Your task to perform on an android device: turn off translation in the chrome app Image 0: 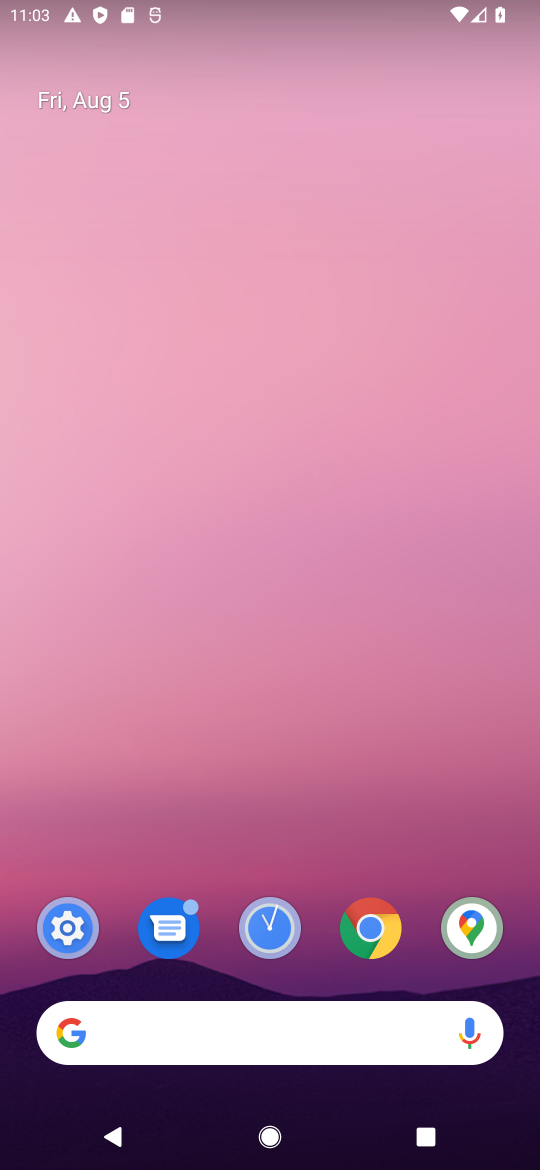
Step 0: drag from (284, 972) to (228, 201)
Your task to perform on an android device: turn off translation in the chrome app Image 1: 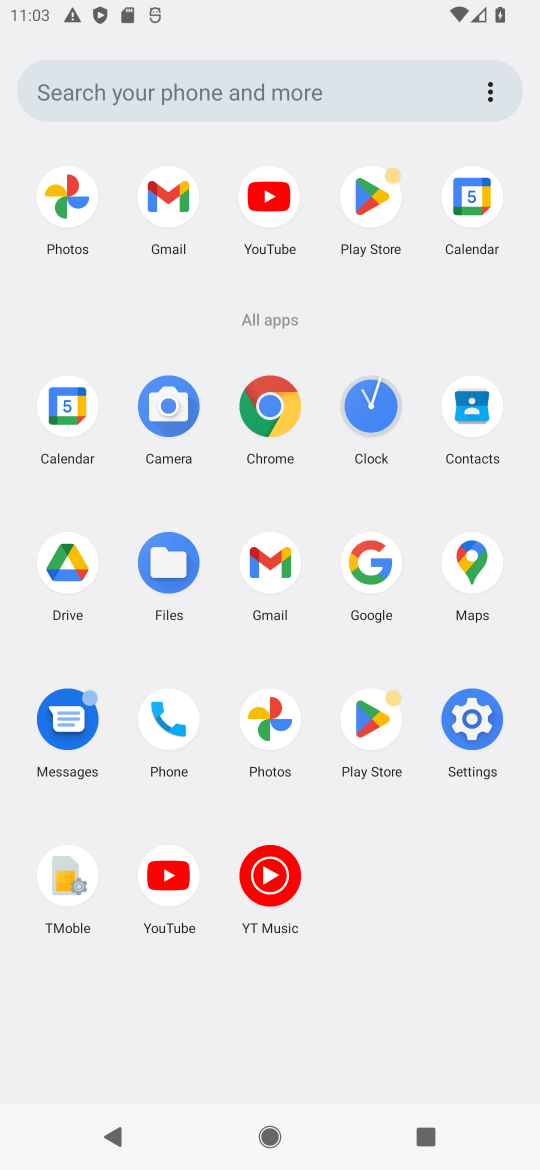
Step 1: click (276, 427)
Your task to perform on an android device: turn off translation in the chrome app Image 2: 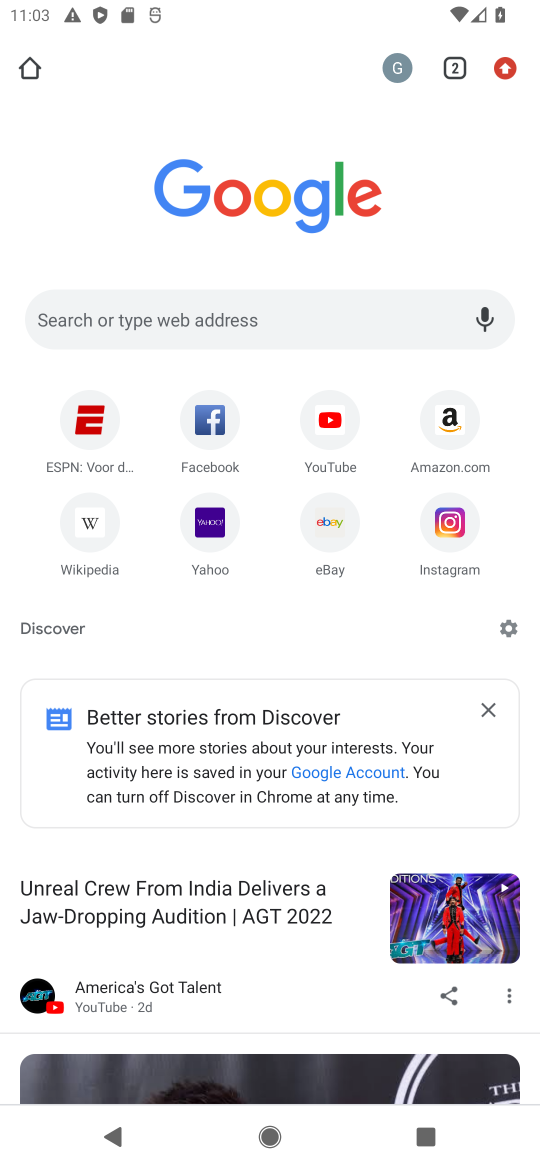
Step 2: click (502, 80)
Your task to perform on an android device: turn off translation in the chrome app Image 3: 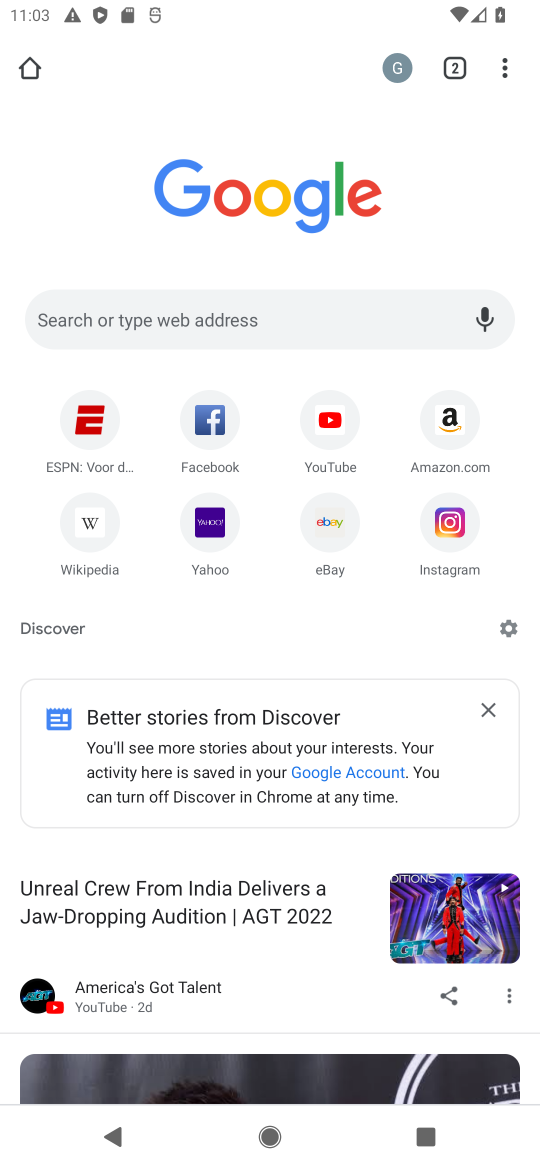
Step 3: drag from (502, 80) to (300, 675)
Your task to perform on an android device: turn off translation in the chrome app Image 4: 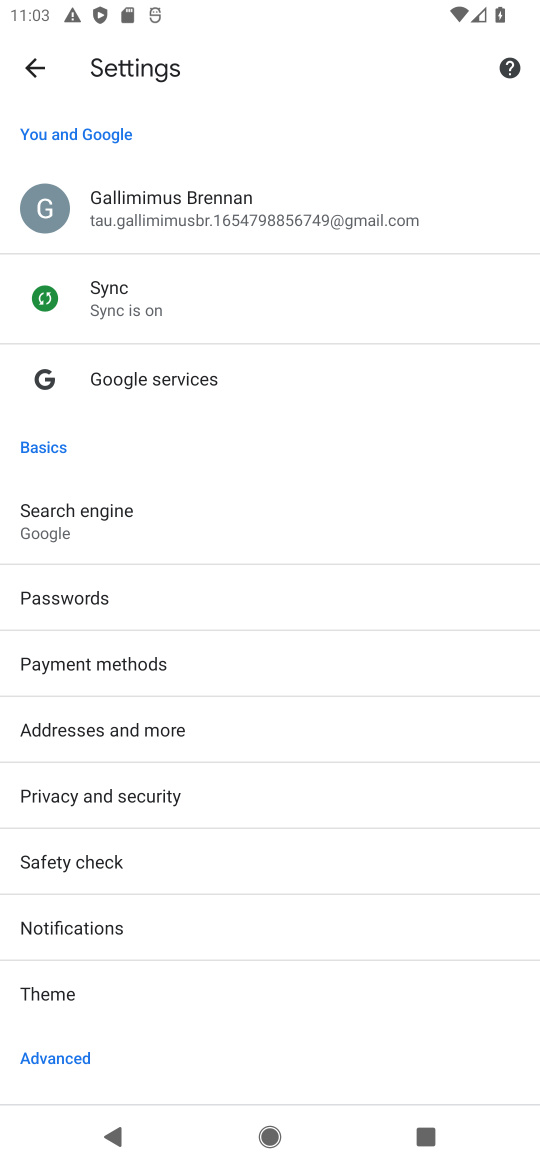
Step 4: drag from (73, 935) to (82, 411)
Your task to perform on an android device: turn off translation in the chrome app Image 5: 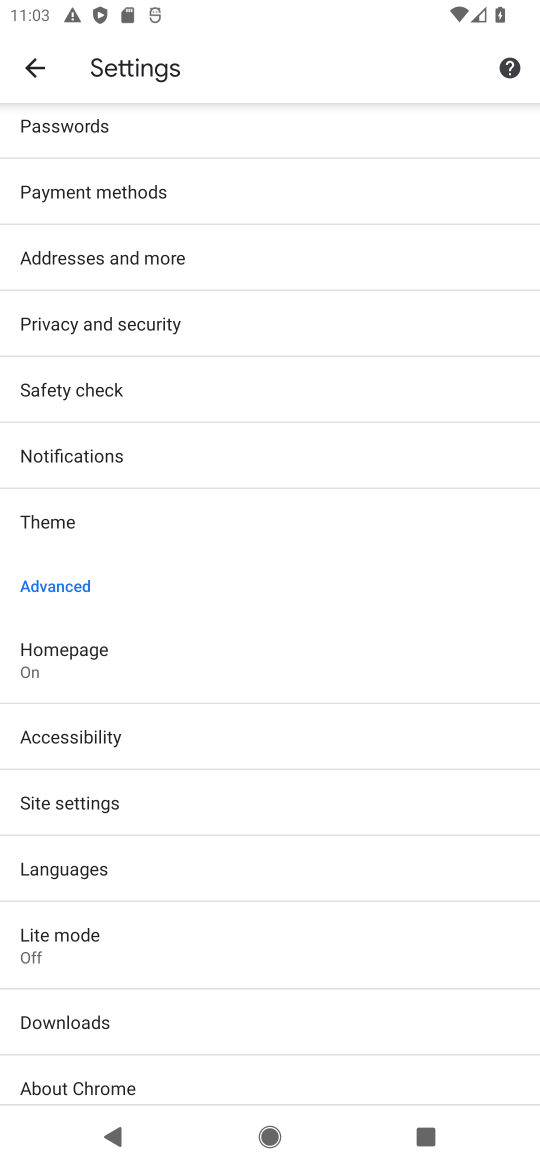
Step 5: click (63, 854)
Your task to perform on an android device: turn off translation in the chrome app Image 6: 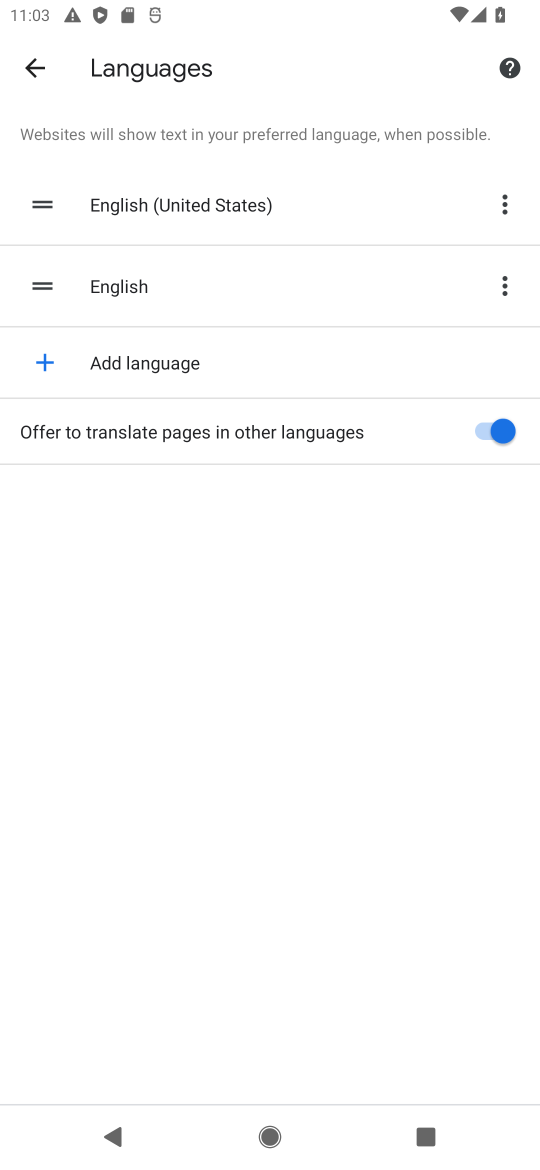
Step 6: click (494, 434)
Your task to perform on an android device: turn off translation in the chrome app Image 7: 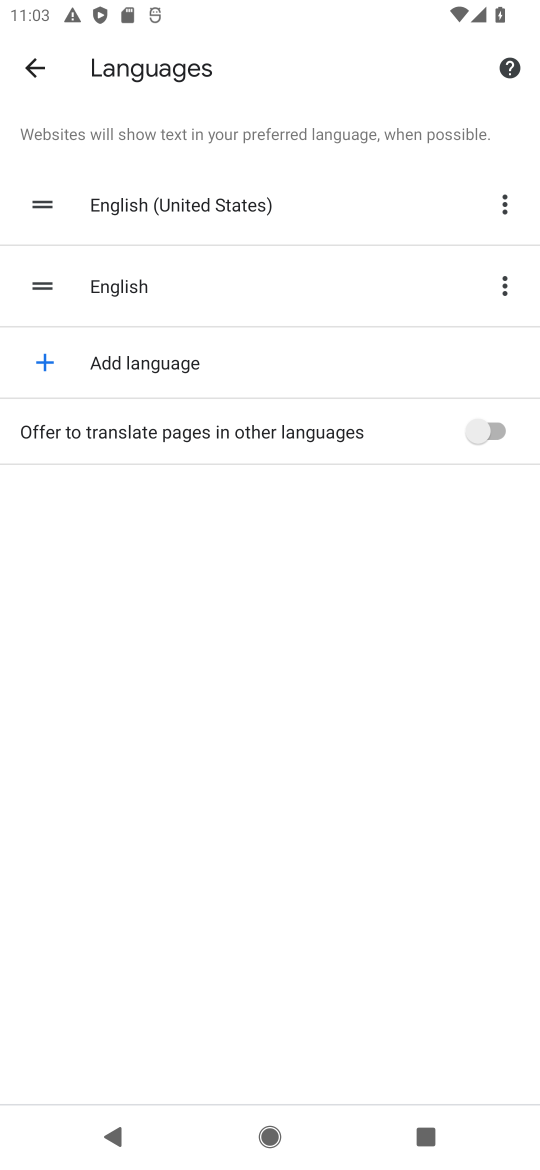
Step 7: task complete